Your task to perform on an android device: Search for flights from Tokyo to Mexico city Image 0: 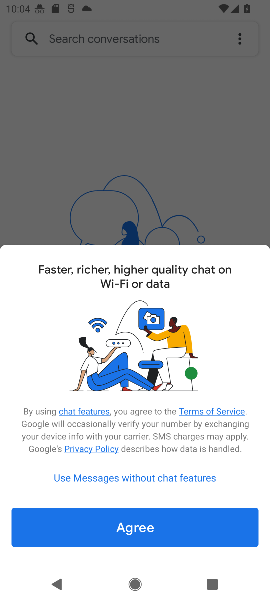
Step 0: press home button
Your task to perform on an android device: Search for flights from Tokyo to Mexico city Image 1: 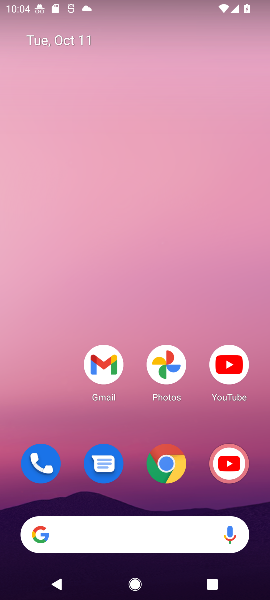
Step 1: drag from (142, 532) to (131, 158)
Your task to perform on an android device: Search for flights from Tokyo to Mexico city Image 2: 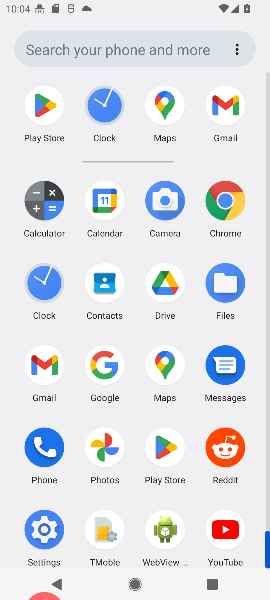
Step 2: click (106, 357)
Your task to perform on an android device: Search for flights from Tokyo to Mexico city Image 3: 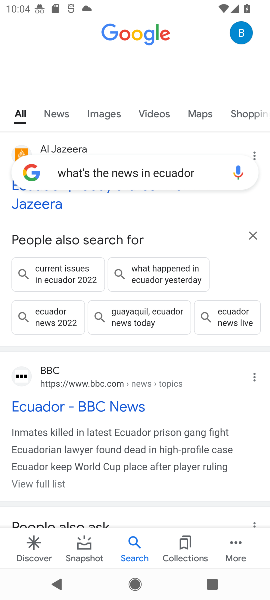
Step 3: click (155, 169)
Your task to perform on an android device: Search for flights from Tokyo to Mexico city Image 4: 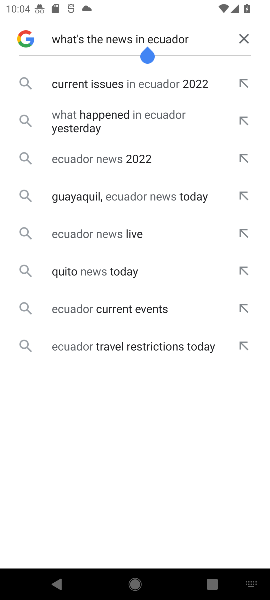
Step 4: click (243, 39)
Your task to perform on an android device: Search for flights from Tokyo to Mexico city Image 5: 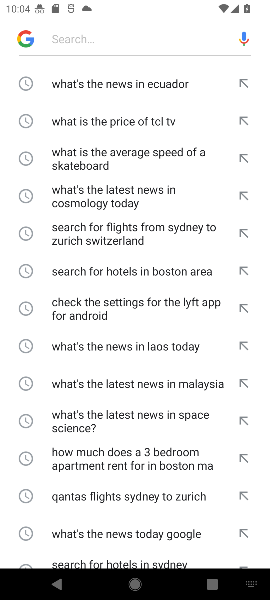
Step 5: click (132, 34)
Your task to perform on an android device: Search for flights from Tokyo to Mexico city Image 6: 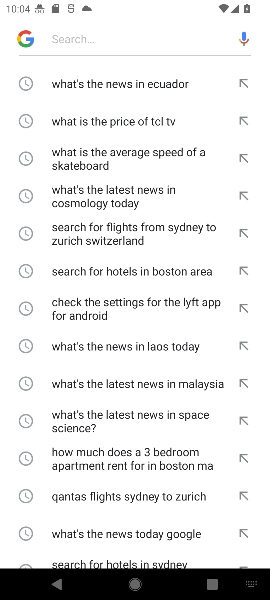
Step 6: type "Search for flights from Tokyo to Mexico city "
Your task to perform on an android device: Search for flights from Tokyo to Mexico city Image 7: 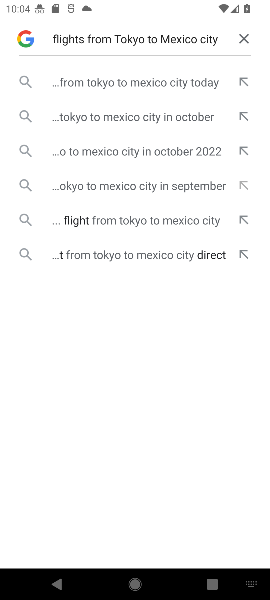
Step 7: click (126, 85)
Your task to perform on an android device: Search for flights from Tokyo to Mexico city Image 8: 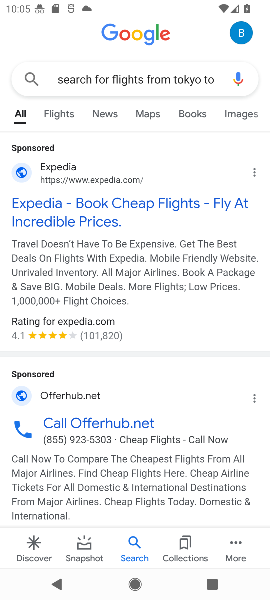
Step 8: click (87, 203)
Your task to perform on an android device: Search for flights from Tokyo to Mexico city Image 9: 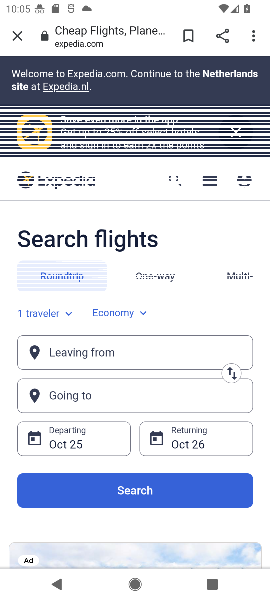
Step 9: click (108, 340)
Your task to perform on an android device: Search for flights from Tokyo to Mexico city Image 10: 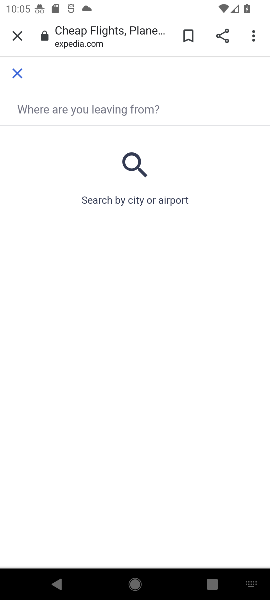
Step 10: click (23, 74)
Your task to perform on an android device: Search for flights from Tokyo to Mexico city Image 11: 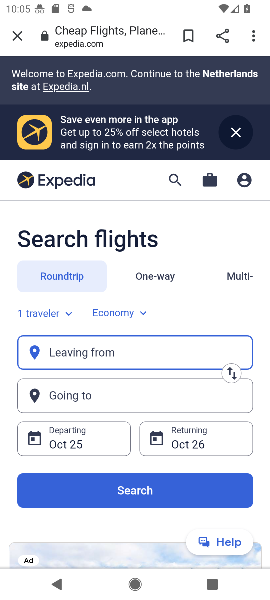
Step 11: task complete